Your task to perform on an android device: Turn on the flashlight Image 0: 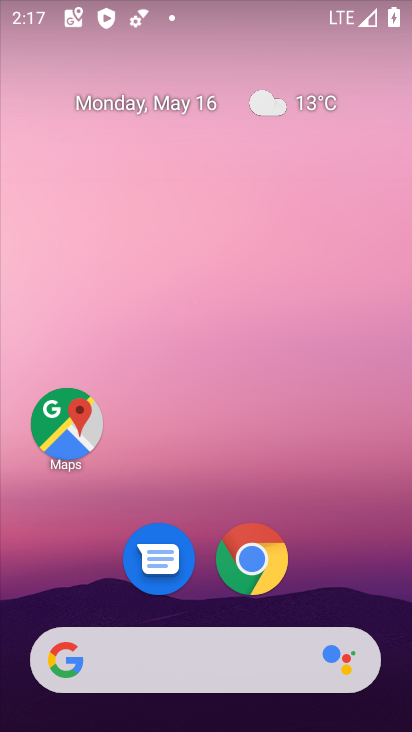
Step 0: drag from (204, 597) to (255, 17)
Your task to perform on an android device: Turn on the flashlight Image 1: 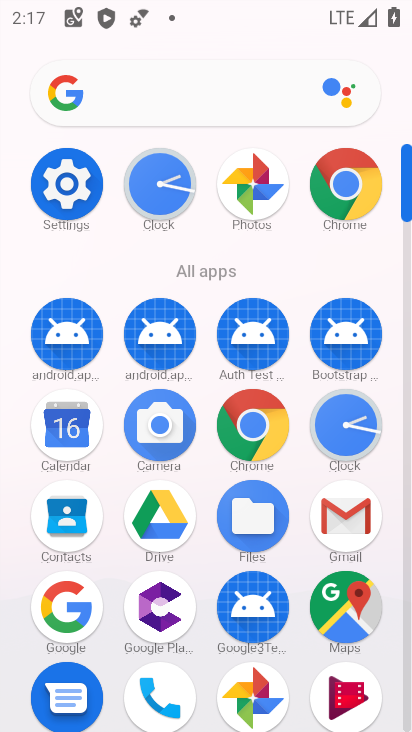
Step 1: click (53, 186)
Your task to perform on an android device: Turn on the flashlight Image 2: 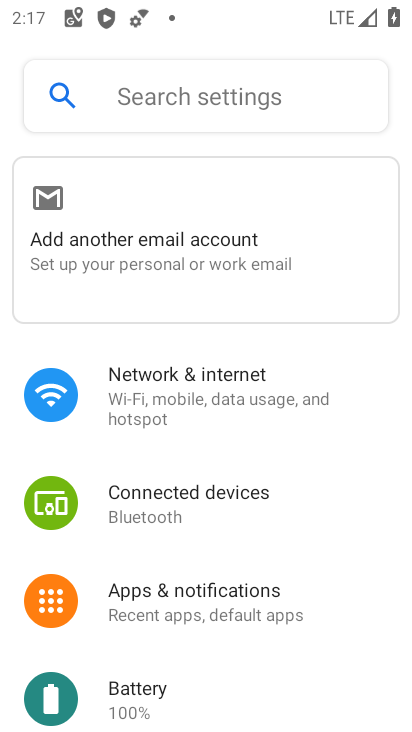
Step 2: click (178, 98)
Your task to perform on an android device: Turn on the flashlight Image 3: 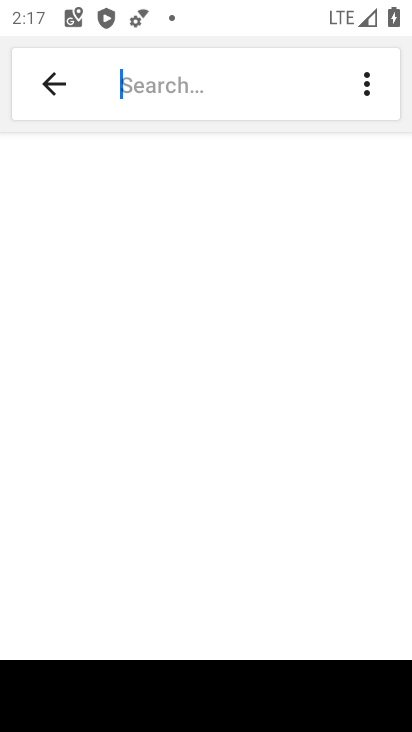
Step 3: type "flashlight"
Your task to perform on an android device: Turn on the flashlight Image 4: 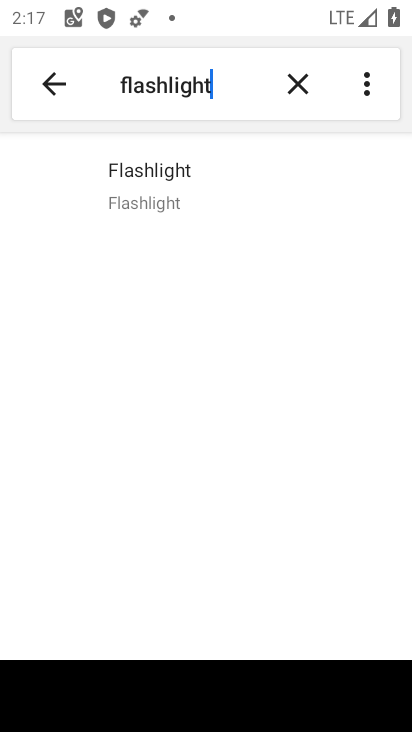
Step 4: click (158, 176)
Your task to perform on an android device: Turn on the flashlight Image 5: 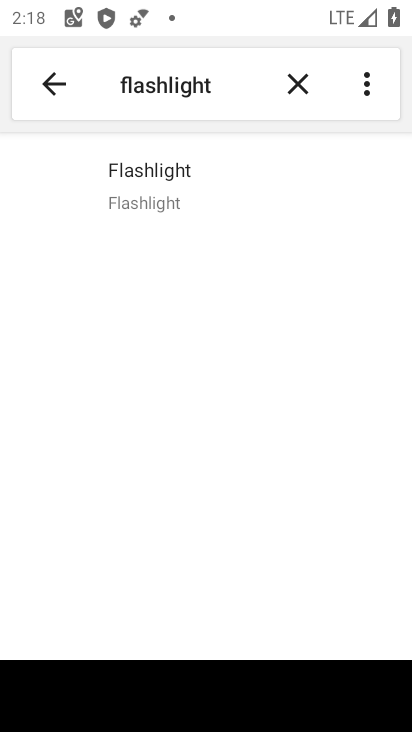
Step 5: task complete